Your task to perform on an android device: clear all cookies in the chrome app Image 0: 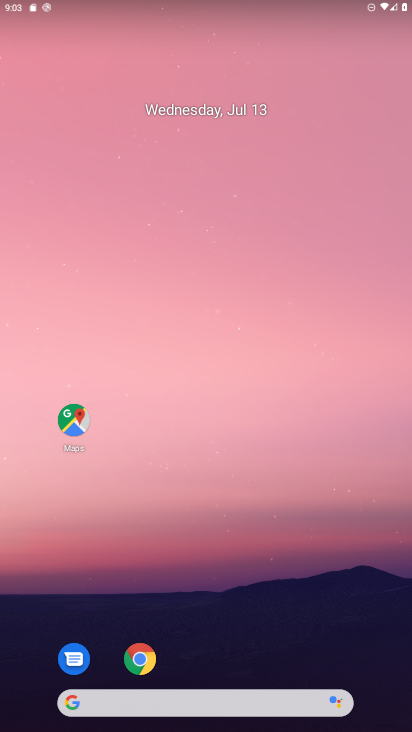
Step 0: click (140, 657)
Your task to perform on an android device: clear all cookies in the chrome app Image 1: 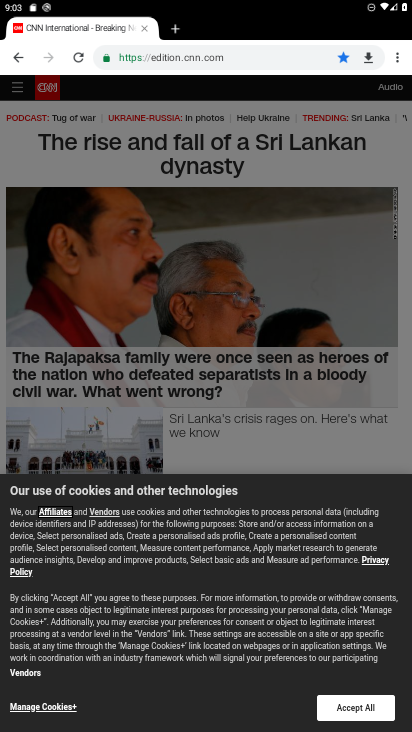
Step 1: click (395, 60)
Your task to perform on an android device: clear all cookies in the chrome app Image 2: 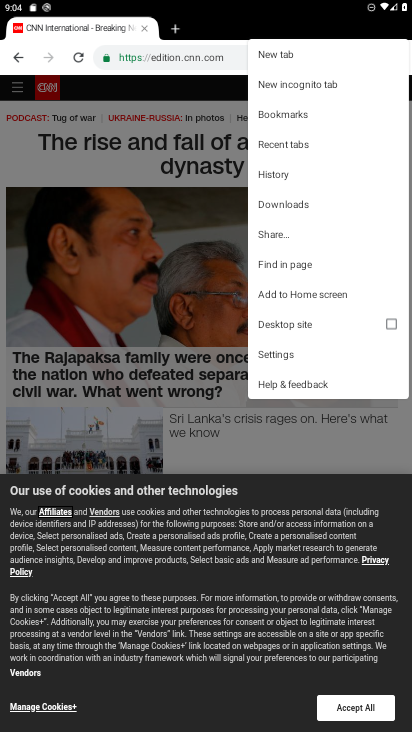
Step 2: click (299, 352)
Your task to perform on an android device: clear all cookies in the chrome app Image 3: 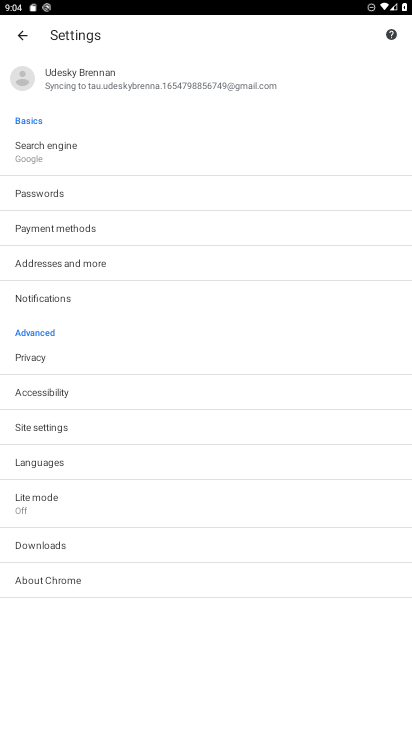
Step 3: click (30, 360)
Your task to perform on an android device: clear all cookies in the chrome app Image 4: 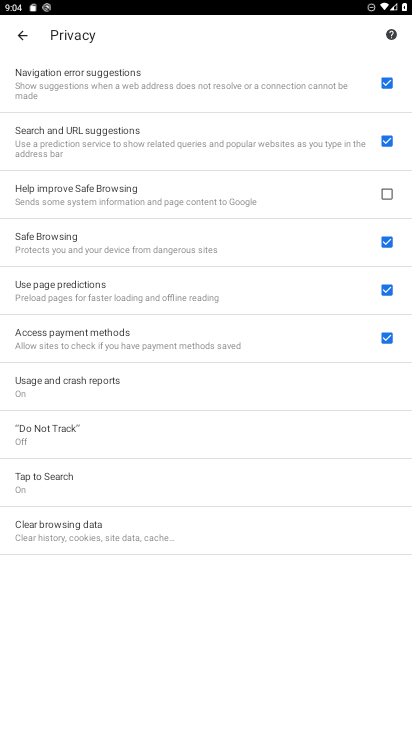
Step 4: click (104, 527)
Your task to perform on an android device: clear all cookies in the chrome app Image 5: 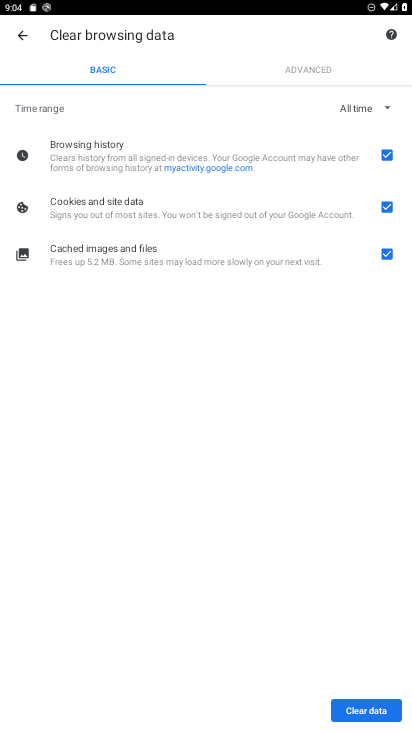
Step 5: click (381, 152)
Your task to perform on an android device: clear all cookies in the chrome app Image 6: 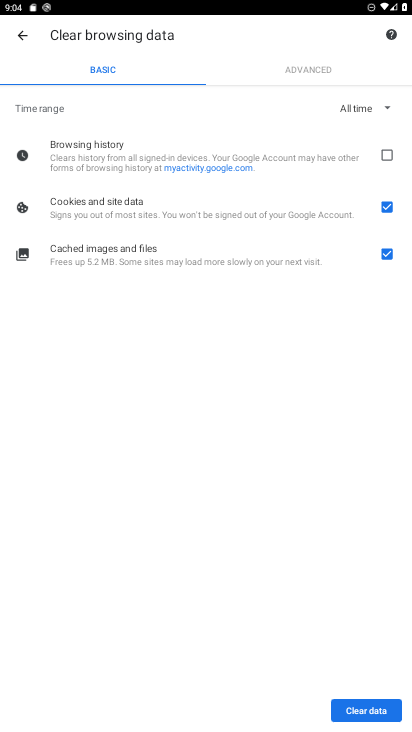
Step 6: click (385, 251)
Your task to perform on an android device: clear all cookies in the chrome app Image 7: 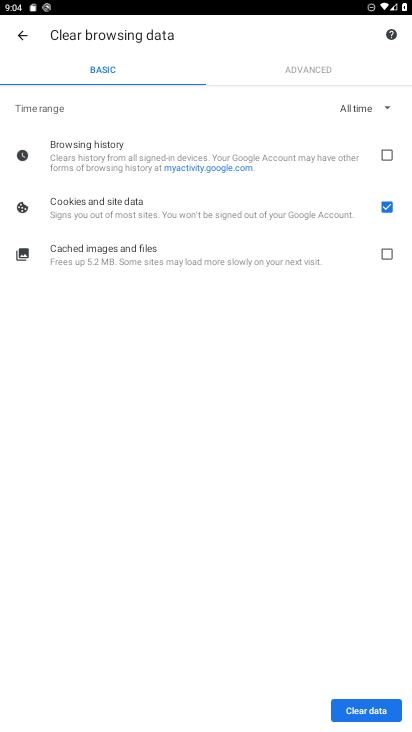
Step 7: click (364, 700)
Your task to perform on an android device: clear all cookies in the chrome app Image 8: 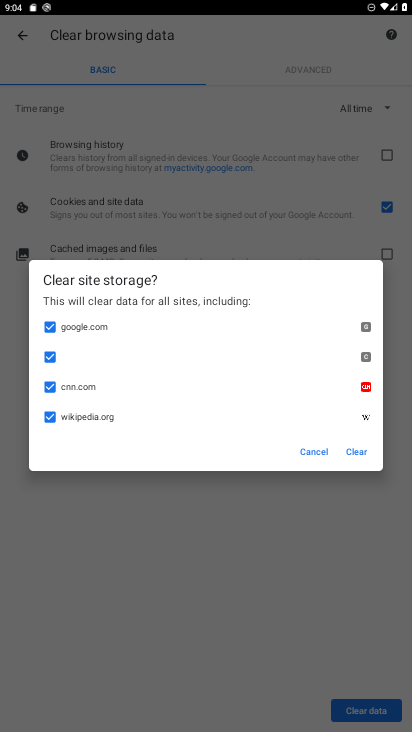
Step 8: click (357, 447)
Your task to perform on an android device: clear all cookies in the chrome app Image 9: 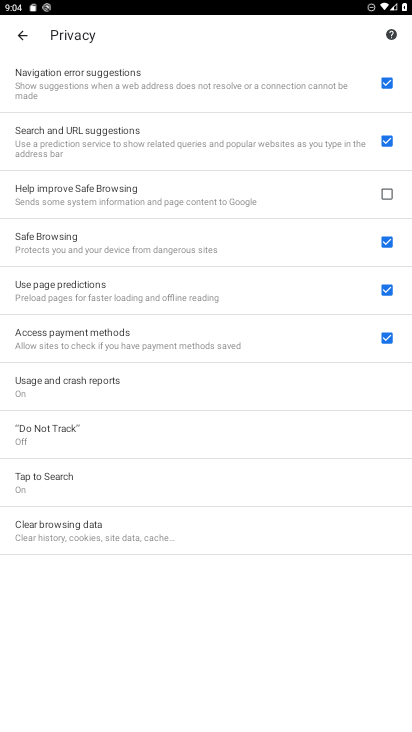
Step 9: task complete